Your task to perform on an android device: Open CNN.com Image 0: 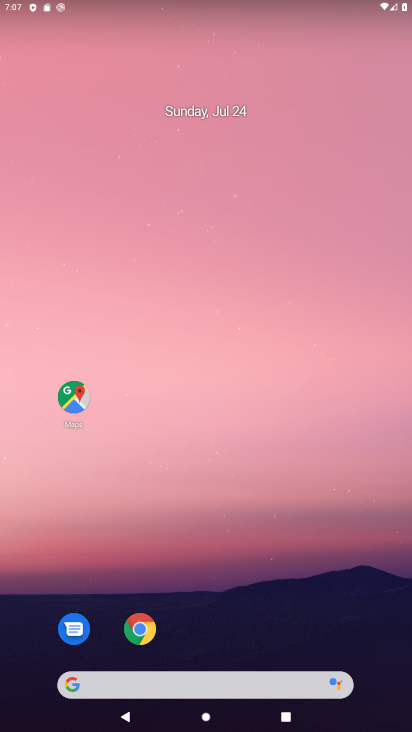
Step 0: click (188, 41)
Your task to perform on an android device: Open CNN.com Image 1: 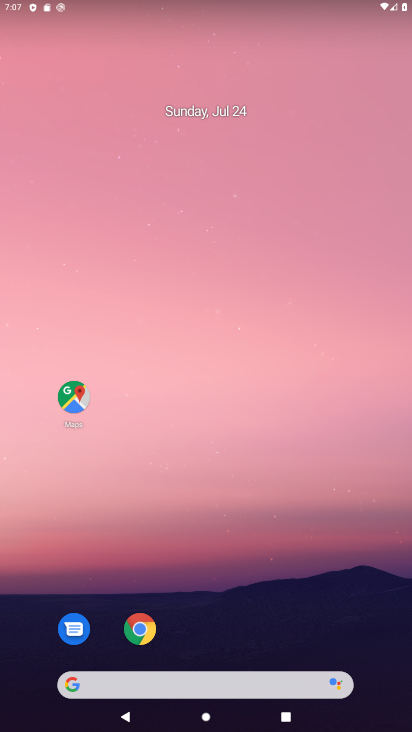
Step 1: drag from (332, 578) to (146, 7)
Your task to perform on an android device: Open CNN.com Image 2: 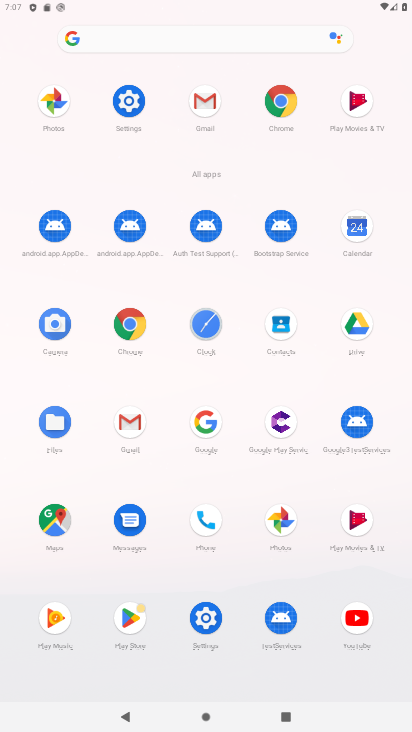
Step 2: click (202, 431)
Your task to perform on an android device: Open CNN.com Image 3: 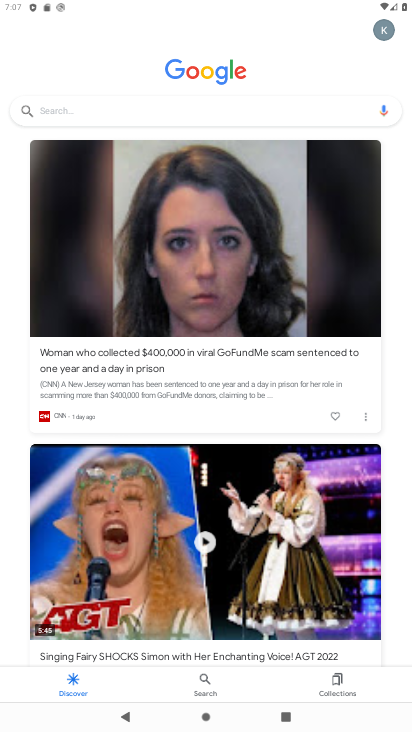
Step 3: click (78, 109)
Your task to perform on an android device: Open CNN.com Image 4: 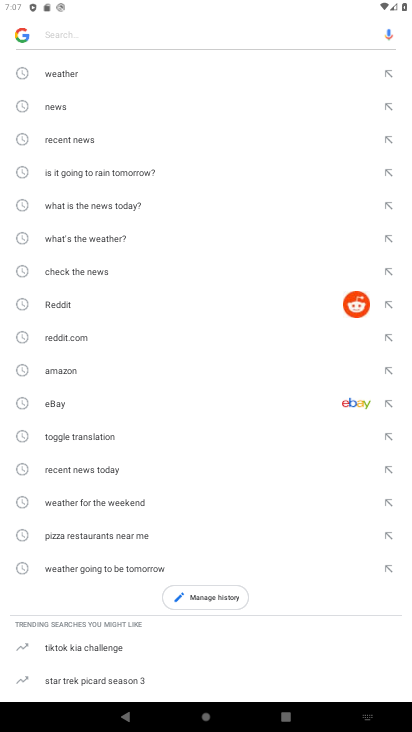
Step 4: type " CNN.com"
Your task to perform on an android device: Open CNN.com Image 5: 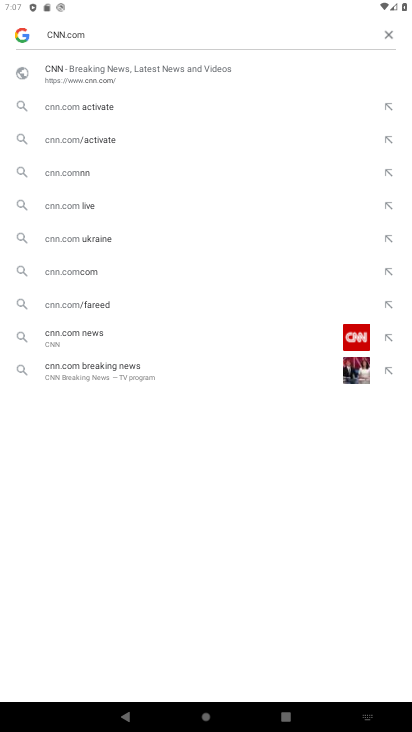
Step 5: click (82, 74)
Your task to perform on an android device: Open CNN.com Image 6: 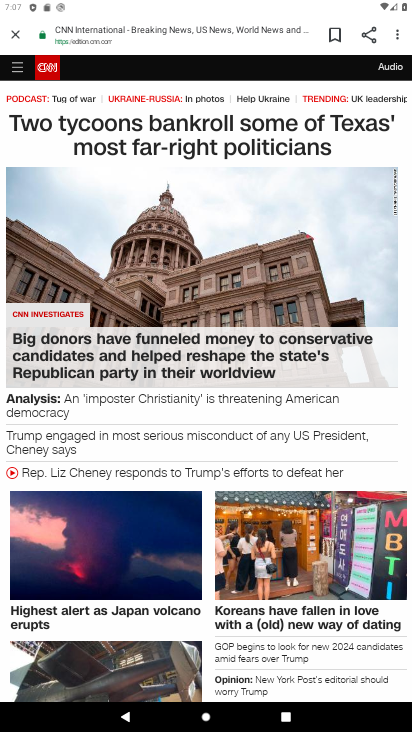
Step 6: task complete